Your task to perform on an android device: empty trash in google photos Image 0: 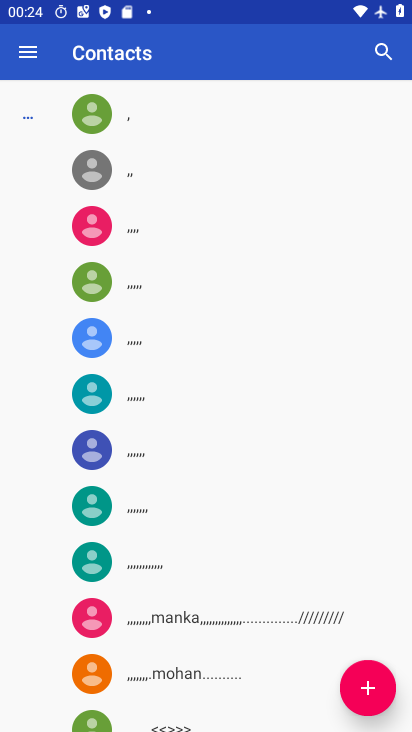
Step 0: press home button
Your task to perform on an android device: empty trash in google photos Image 1: 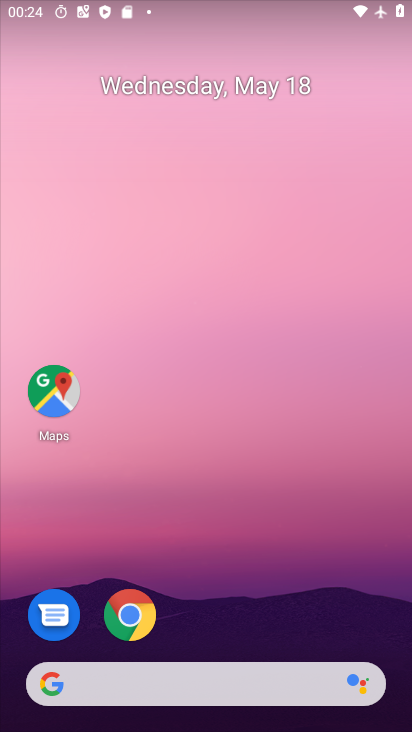
Step 1: drag from (206, 629) to (235, 204)
Your task to perform on an android device: empty trash in google photos Image 2: 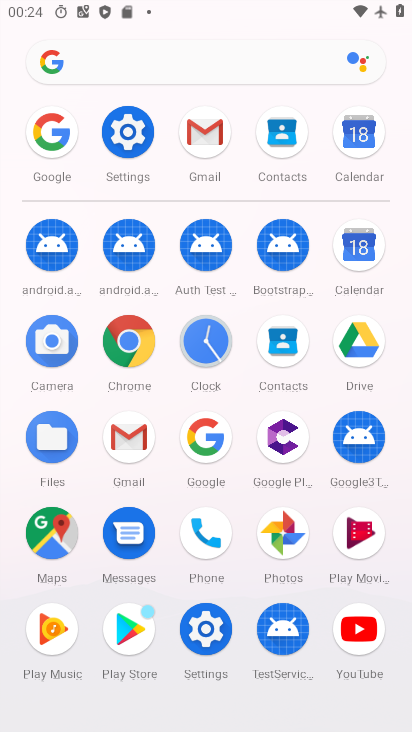
Step 2: click (271, 538)
Your task to perform on an android device: empty trash in google photos Image 3: 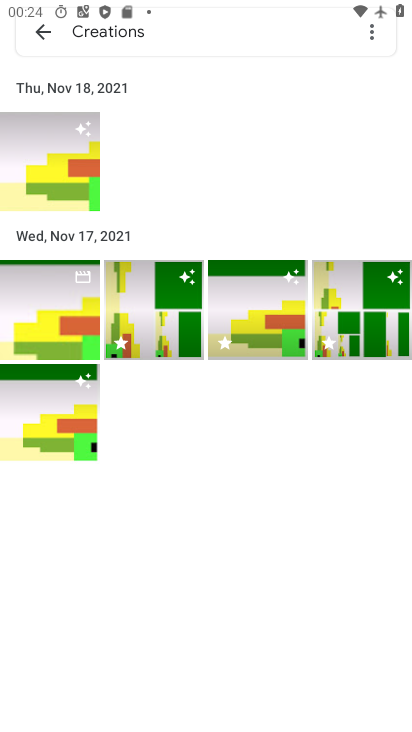
Step 3: click (35, 42)
Your task to perform on an android device: empty trash in google photos Image 4: 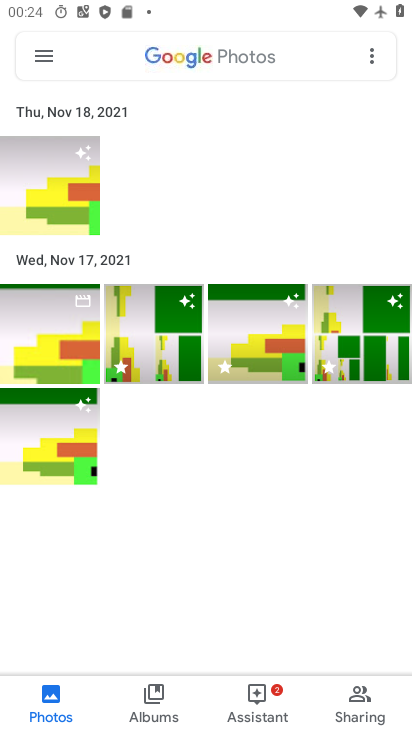
Step 4: click (35, 42)
Your task to perform on an android device: empty trash in google photos Image 5: 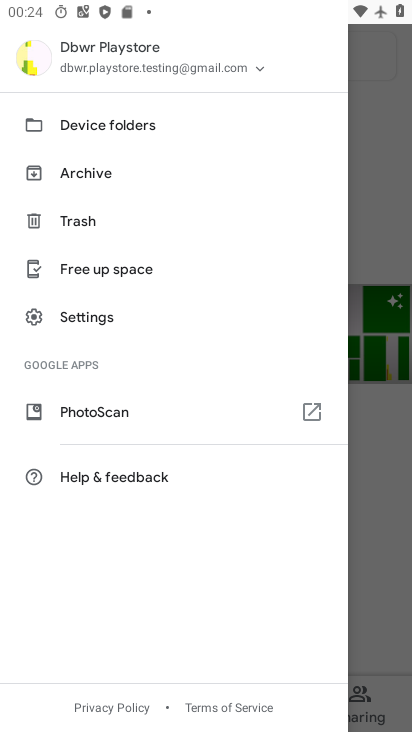
Step 5: click (86, 215)
Your task to perform on an android device: empty trash in google photos Image 6: 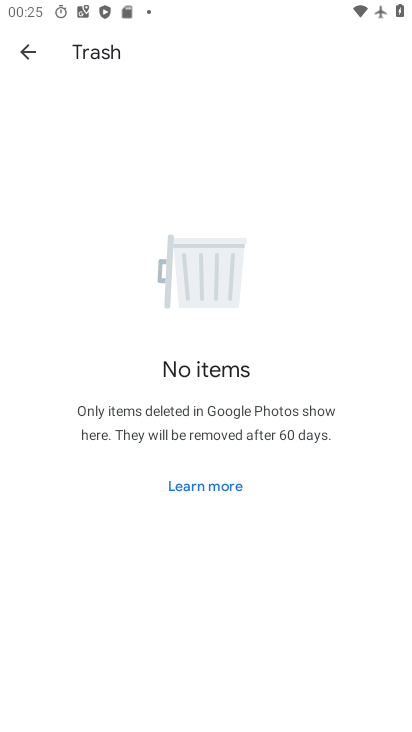
Step 6: task complete